Your task to perform on an android device: Go to sound settings Image 0: 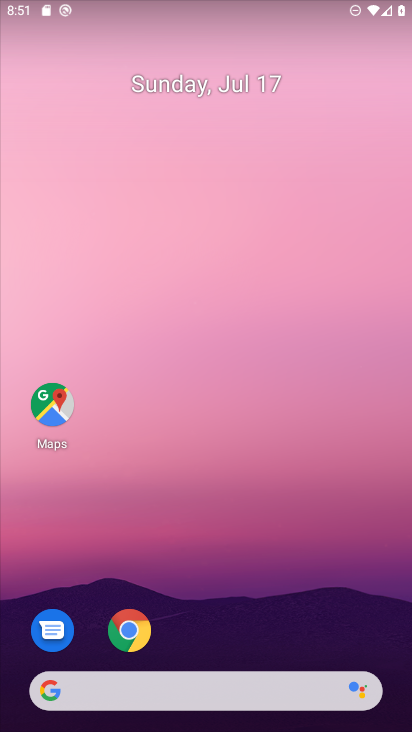
Step 0: drag from (381, 637) to (239, 21)
Your task to perform on an android device: Go to sound settings Image 1: 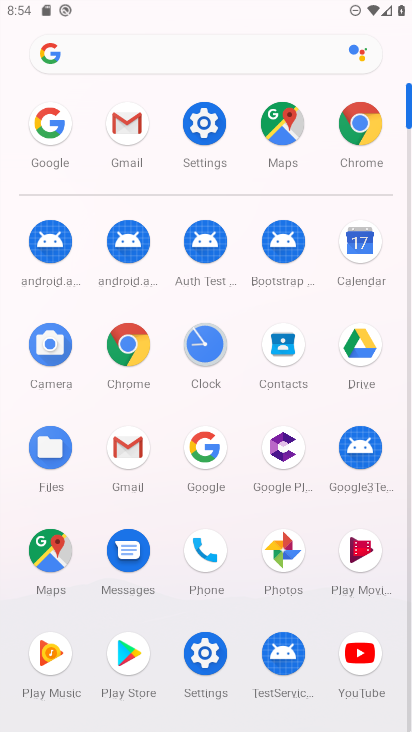
Step 1: click (205, 648)
Your task to perform on an android device: Go to sound settings Image 2: 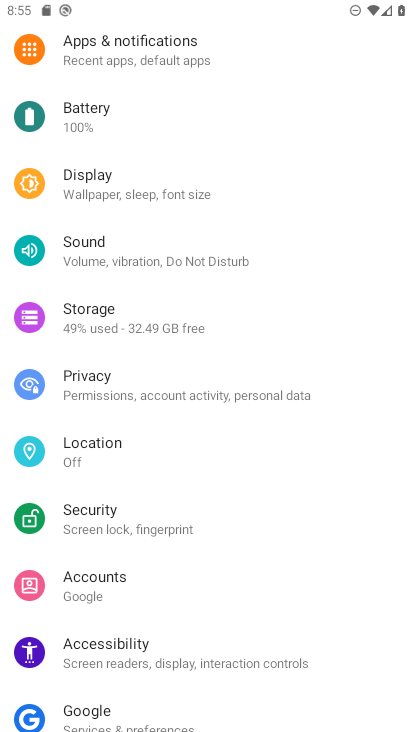
Step 2: click (95, 258)
Your task to perform on an android device: Go to sound settings Image 3: 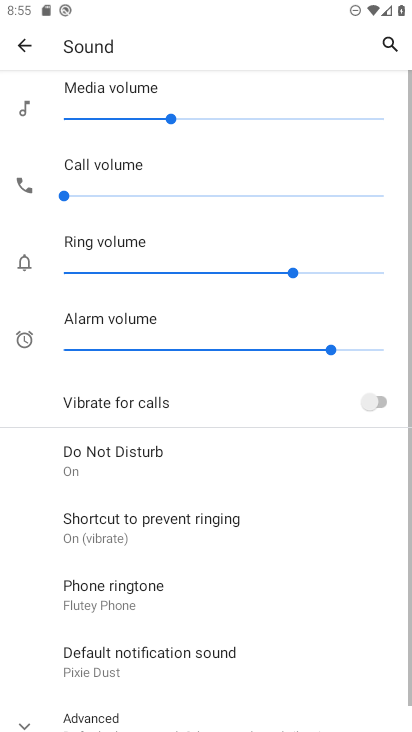
Step 3: task complete